Your task to perform on an android device: Find coffee shops on Maps Image 0: 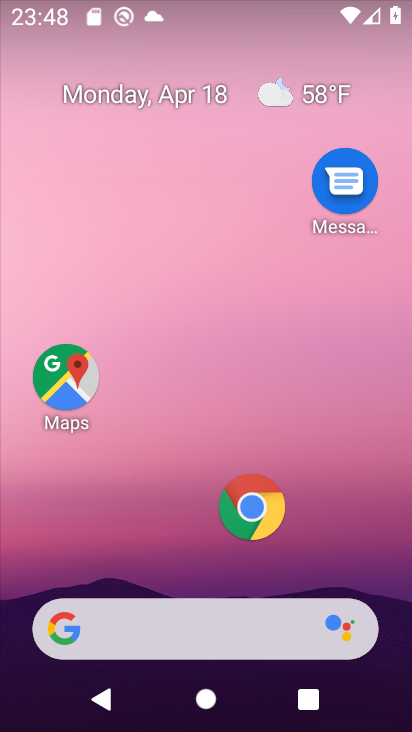
Step 0: click (64, 369)
Your task to perform on an android device: Find coffee shops on Maps Image 1: 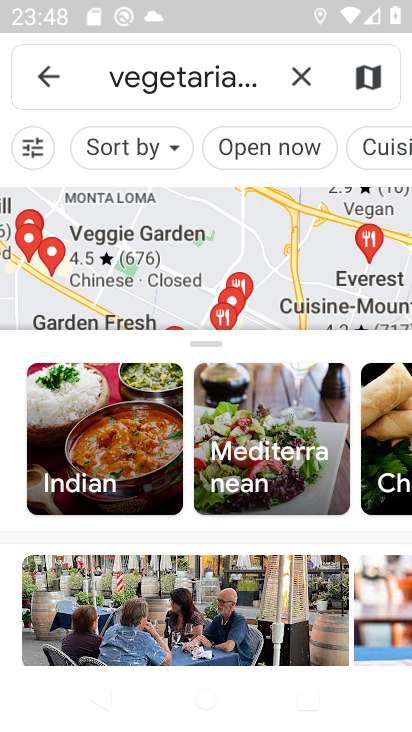
Step 1: click (289, 67)
Your task to perform on an android device: Find coffee shops on Maps Image 2: 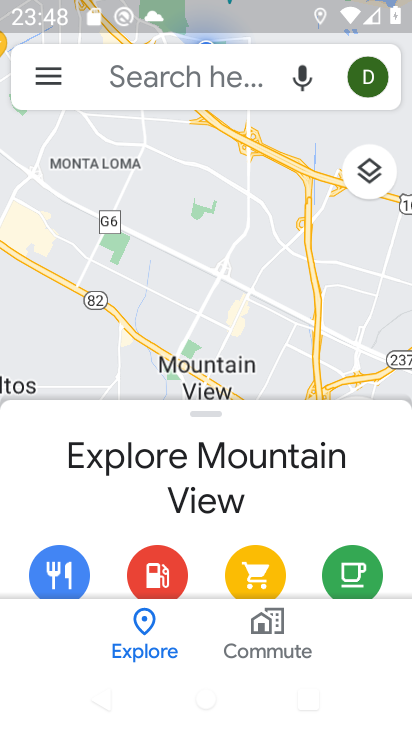
Step 2: click (179, 75)
Your task to perform on an android device: Find coffee shops on Maps Image 3: 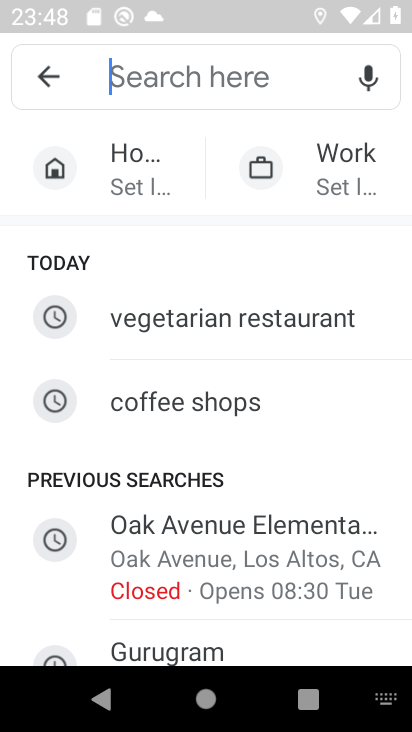
Step 3: type "coffee shops"
Your task to perform on an android device: Find coffee shops on Maps Image 4: 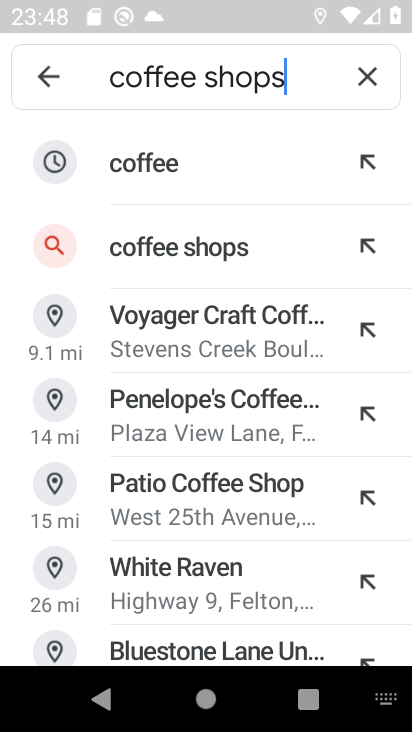
Step 4: click (207, 262)
Your task to perform on an android device: Find coffee shops on Maps Image 5: 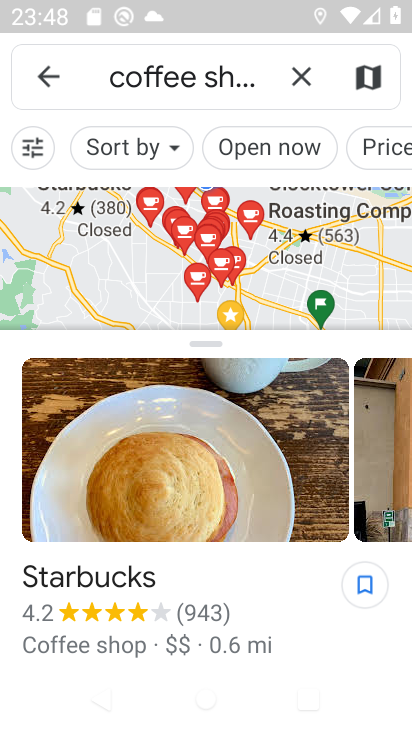
Step 5: task complete